Your task to perform on an android device: change notifications settings Image 0: 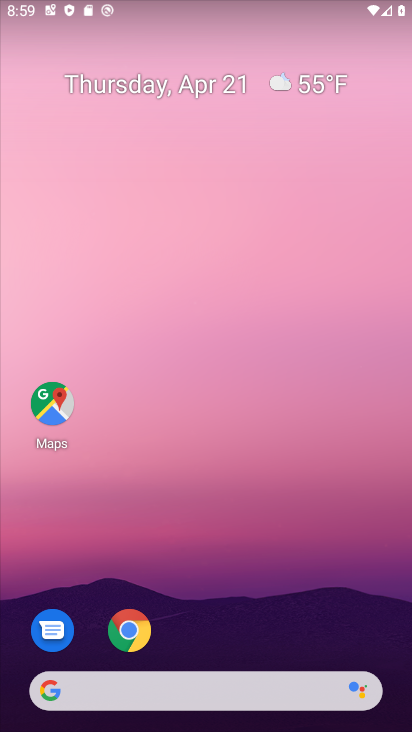
Step 0: click (278, 118)
Your task to perform on an android device: change notifications settings Image 1: 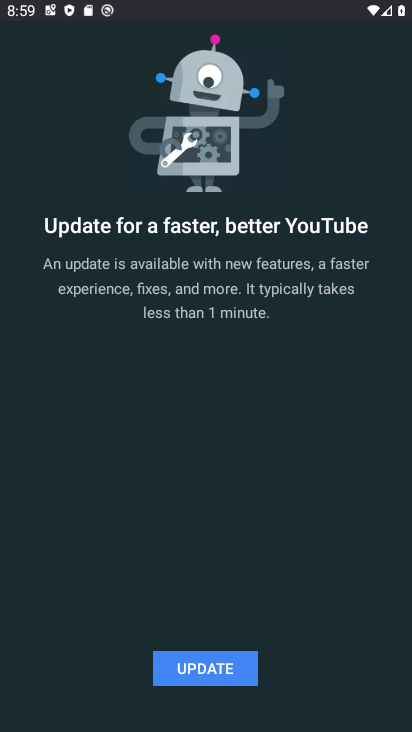
Step 1: press back button
Your task to perform on an android device: change notifications settings Image 2: 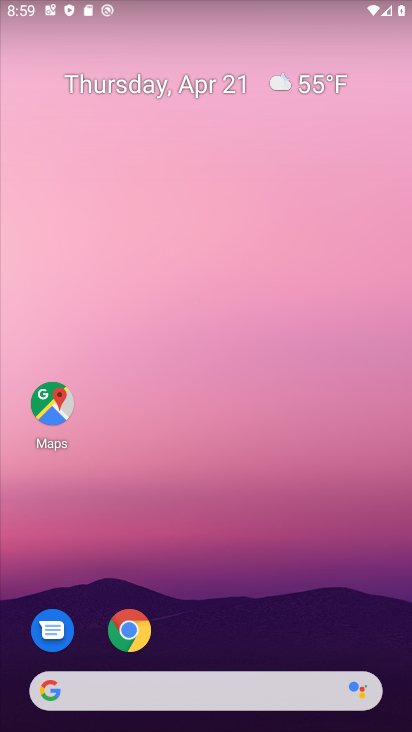
Step 2: drag from (201, 664) to (269, 112)
Your task to perform on an android device: change notifications settings Image 3: 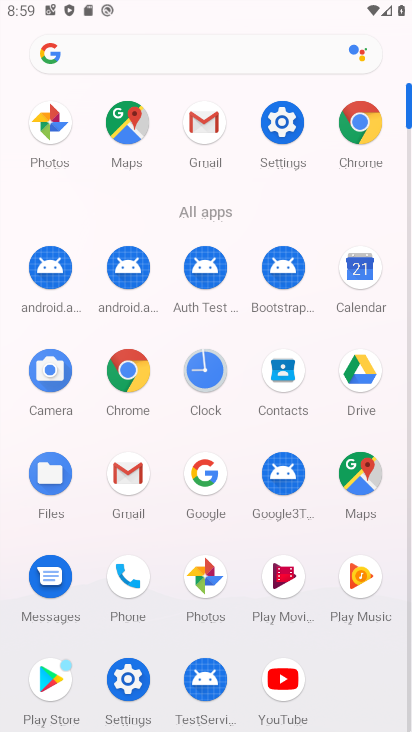
Step 3: click (100, 673)
Your task to perform on an android device: change notifications settings Image 4: 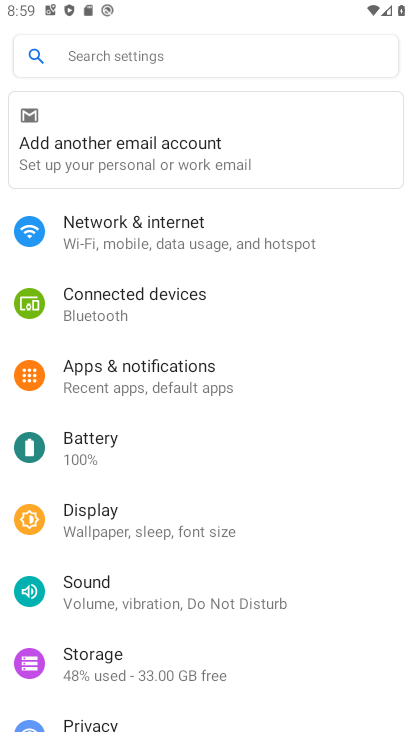
Step 4: click (195, 381)
Your task to perform on an android device: change notifications settings Image 5: 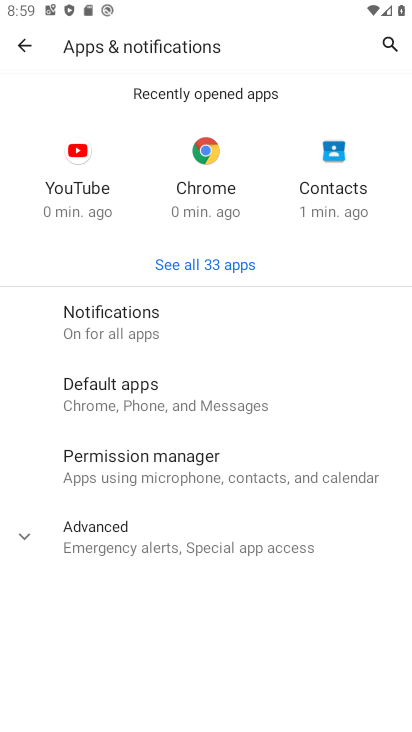
Step 5: click (168, 334)
Your task to perform on an android device: change notifications settings Image 6: 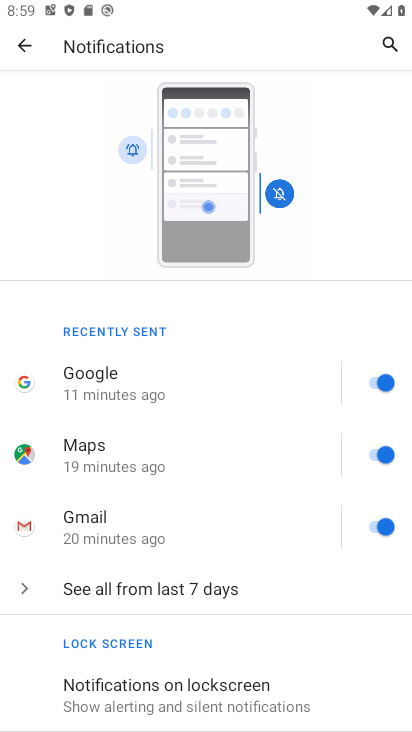
Step 6: click (386, 377)
Your task to perform on an android device: change notifications settings Image 7: 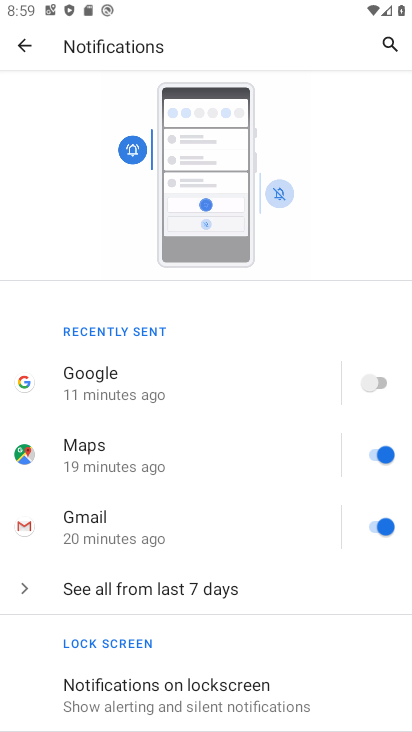
Step 7: click (385, 460)
Your task to perform on an android device: change notifications settings Image 8: 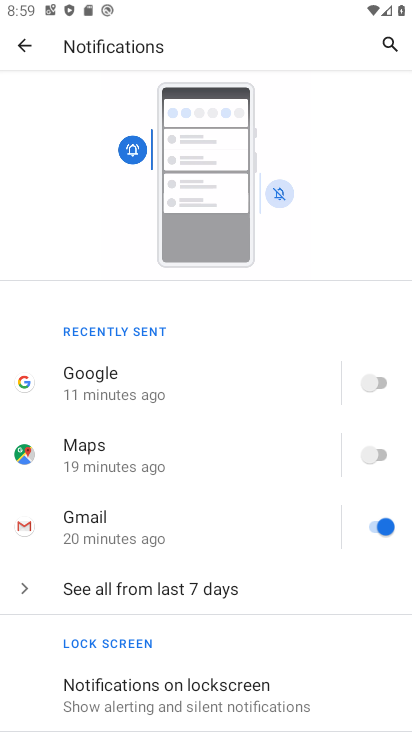
Step 8: click (388, 527)
Your task to perform on an android device: change notifications settings Image 9: 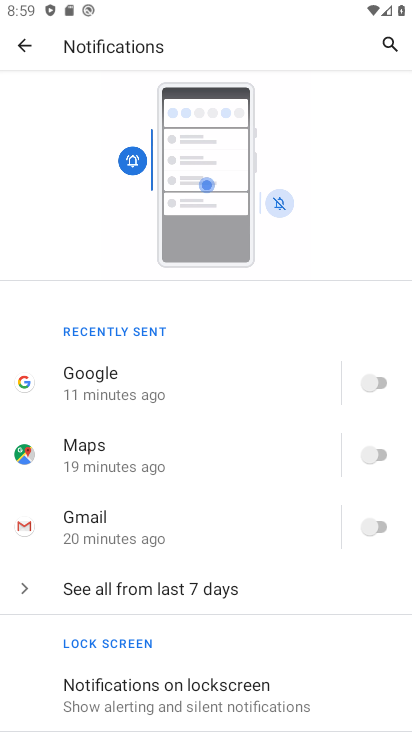
Step 9: drag from (219, 521) to (240, 147)
Your task to perform on an android device: change notifications settings Image 10: 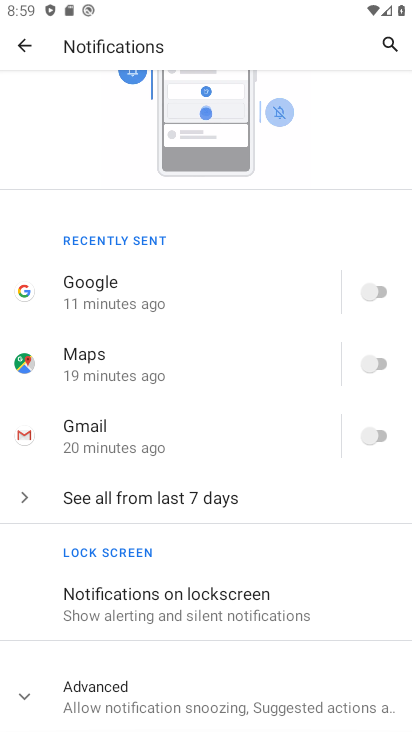
Step 10: click (237, 610)
Your task to perform on an android device: change notifications settings Image 11: 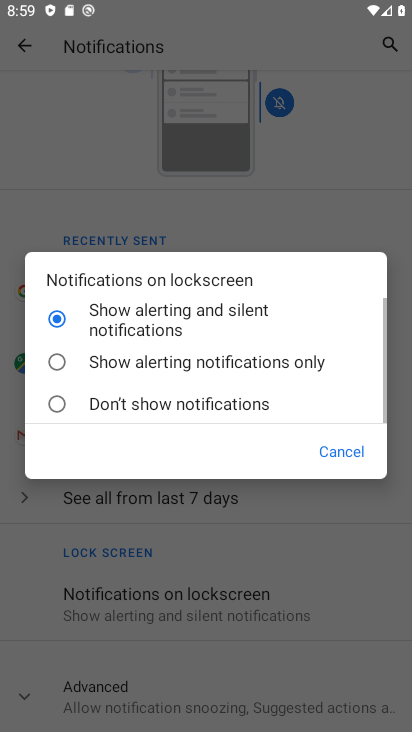
Step 11: click (135, 378)
Your task to perform on an android device: change notifications settings Image 12: 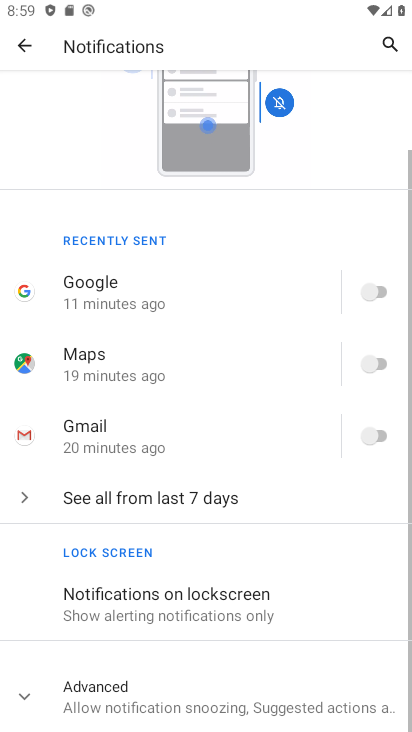
Step 12: click (181, 697)
Your task to perform on an android device: change notifications settings Image 13: 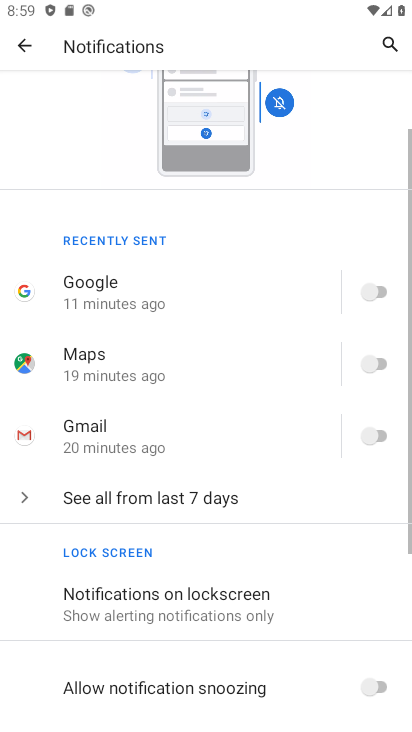
Step 13: drag from (251, 556) to (271, 206)
Your task to perform on an android device: change notifications settings Image 14: 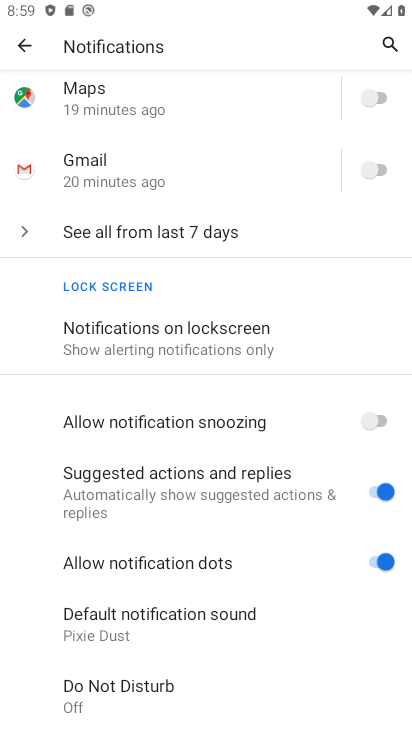
Step 14: click (386, 413)
Your task to perform on an android device: change notifications settings Image 15: 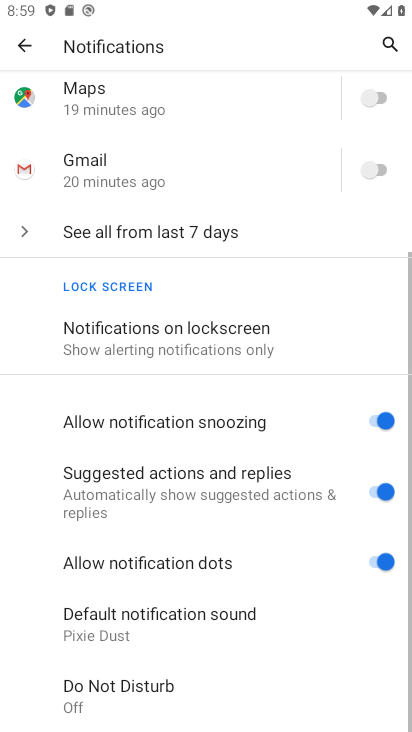
Step 15: click (387, 497)
Your task to perform on an android device: change notifications settings Image 16: 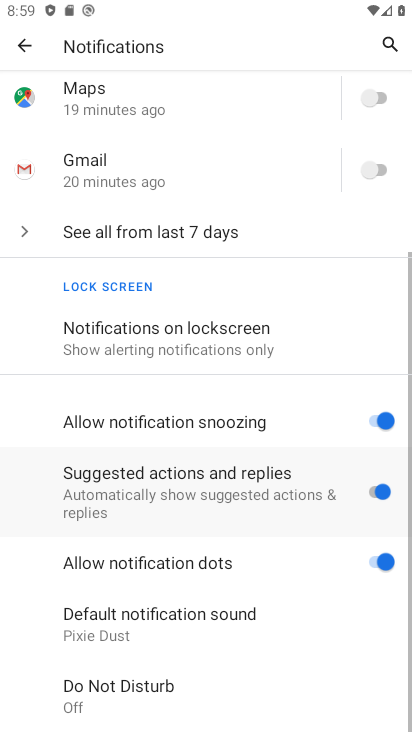
Step 16: click (386, 562)
Your task to perform on an android device: change notifications settings Image 17: 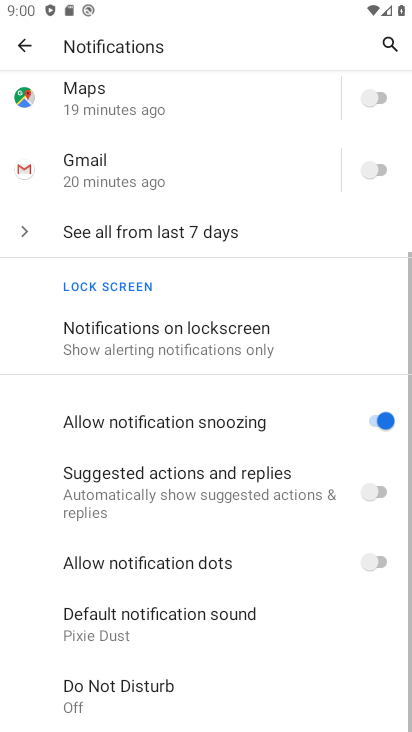
Step 17: click (173, 630)
Your task to perform on an android device: change notifications settings Image 18: 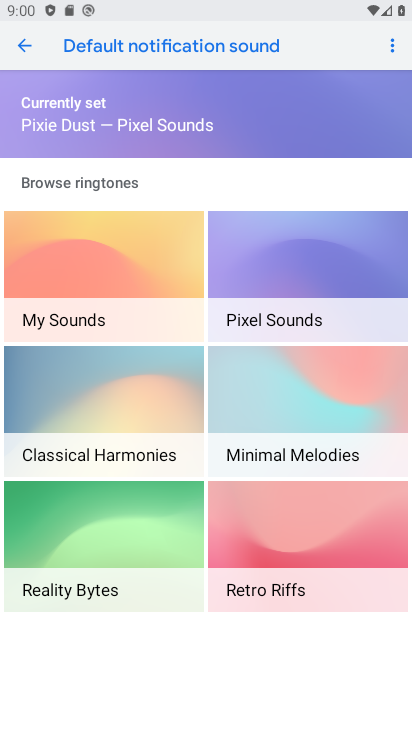
Step 18: click (140, 565)
Your task to perform on an android device: change notifications settings Image 19: 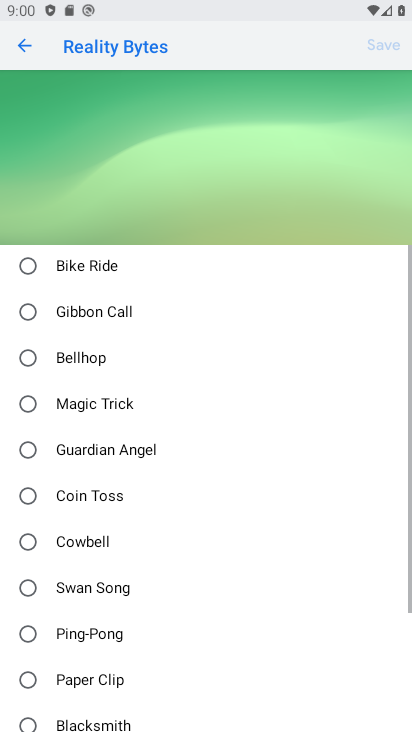
Step 19: click (108, 498)
Your task to perform on an android device: change notifications settings Image 20: 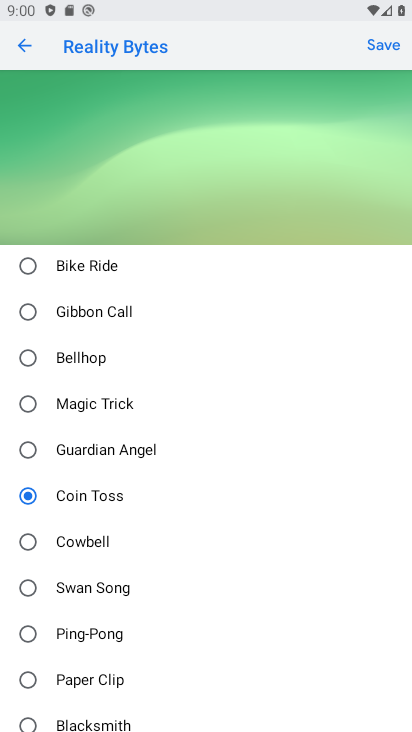
Step 20: click (385, 49)
Your task to perform on an android device: change notifications settings Image 21: 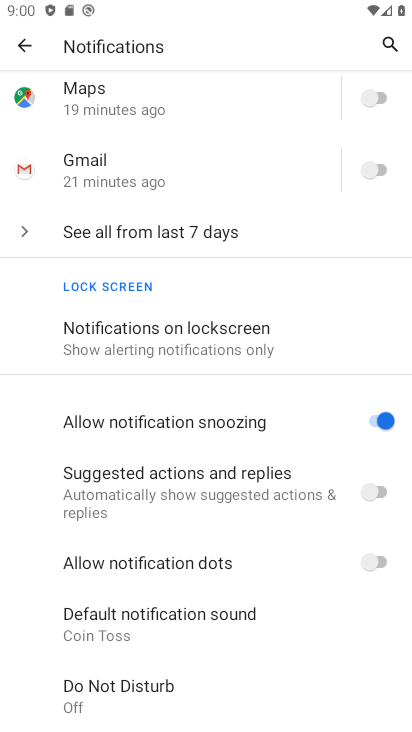
Step 21: task complete